Your task to perform on an android device: choose inbox layout in the gmail app Image 0: 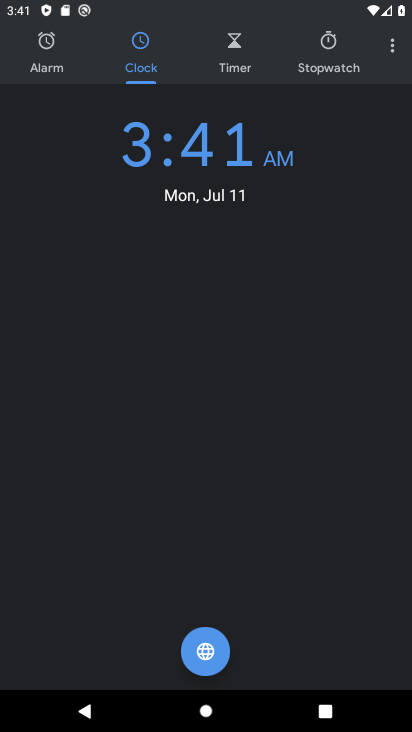
Step 0: press home button
Your task to perform on an android device: choose inbox layout in the gmail app Image 1: 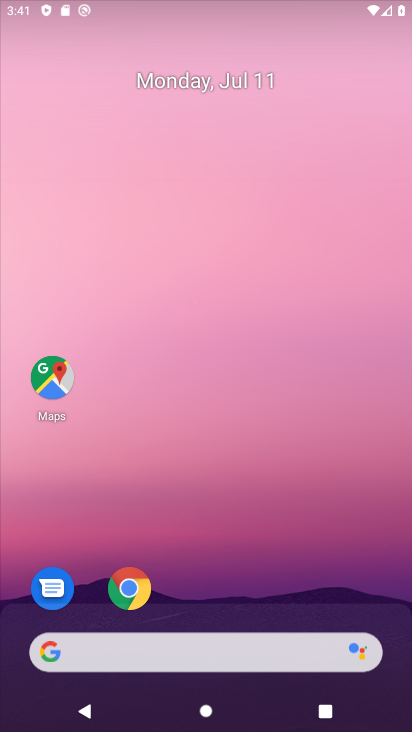
Step 1: drag from (298, 616) to (288, 0)
Your task to perform on an android device: choose inbox layout in the gmail app Image 2: 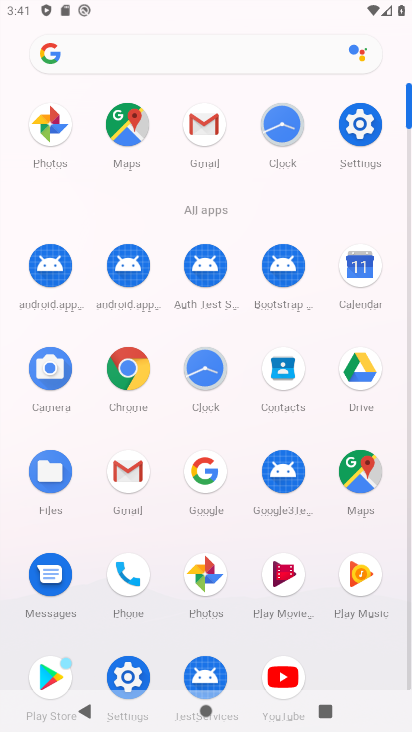
Step 2: click (187, 125)
Your task to perform on an android device: choose inbox layout in the gmail app Image 3: 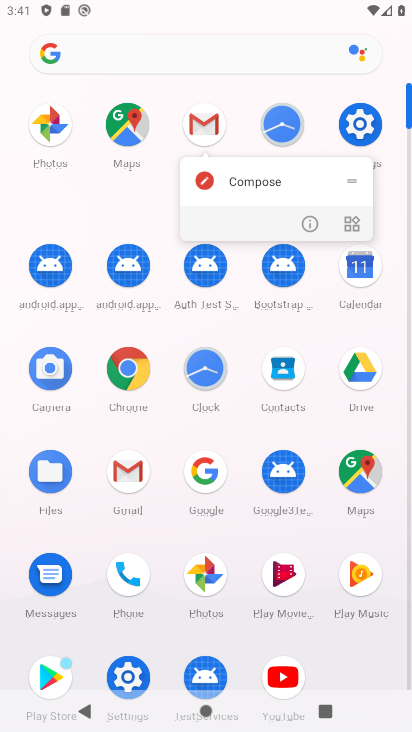
Step 3: click (195, 123)
Your task to perform on an android device: choose inbox layout in the gmail app Image 4: 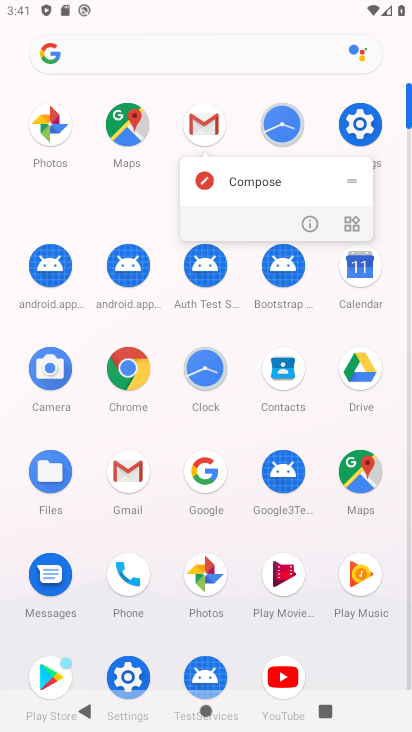
Step 4: click (197, 128)
Your task to perform on an android device: choose inbox layout in the gmail app Image 5: 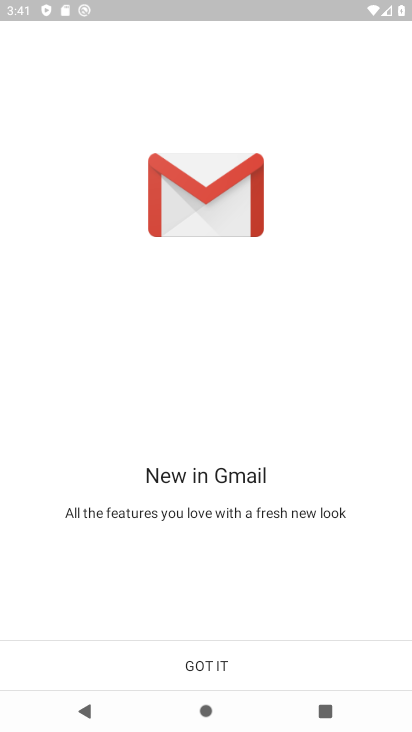
Step 5: click (212, 668)
Your task to perform on an android device: choose inbox layout in the gmail app Image 6: 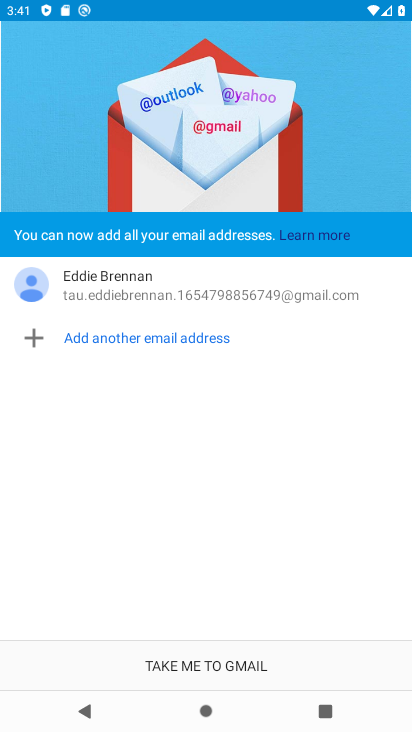
Step 6: click (212, 667)
Your task to perform on an android device: choose inbox layout in the gmail app Image 7: 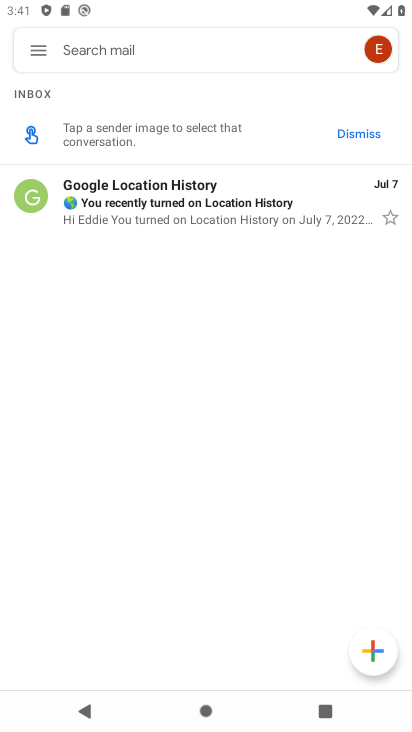
Step 7: click (39, 47)
Your task to perform on an android device: choose inbox layout in the gmail app Image 8: 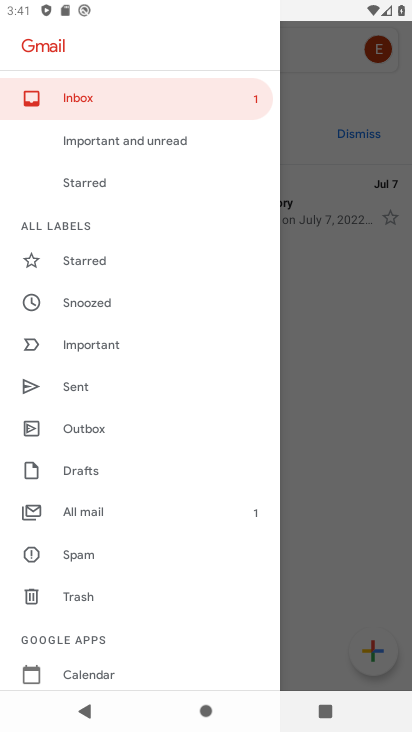
Step 8: drag from (93, 629) to (167, 85)
Your task to perform on an android device: choose inbox layout in the gmail app Image 9: 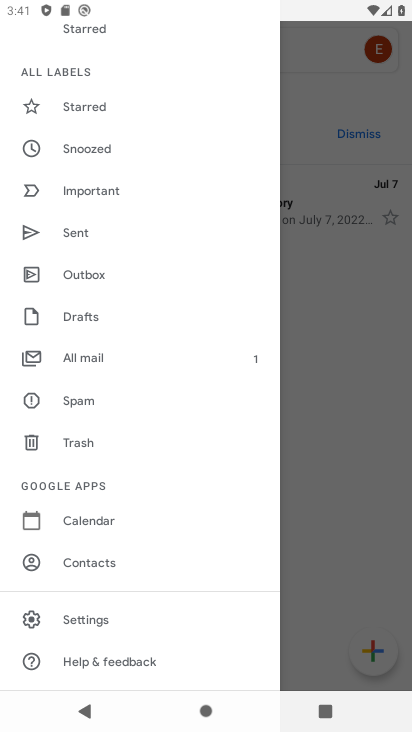
Step 9: click (78, 622)
Your task to perform on an android device: choose inbox layout in the gmail app Image 10: 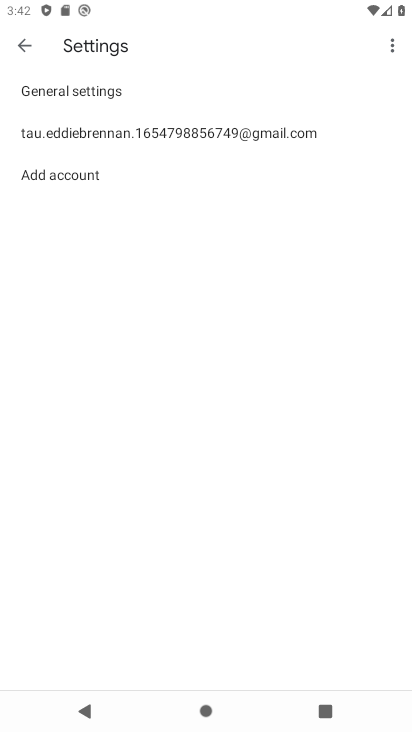
Step 10: click (62, 129)
Your task to perform on an android device: choose inbox layout in the gmail app Image 11: 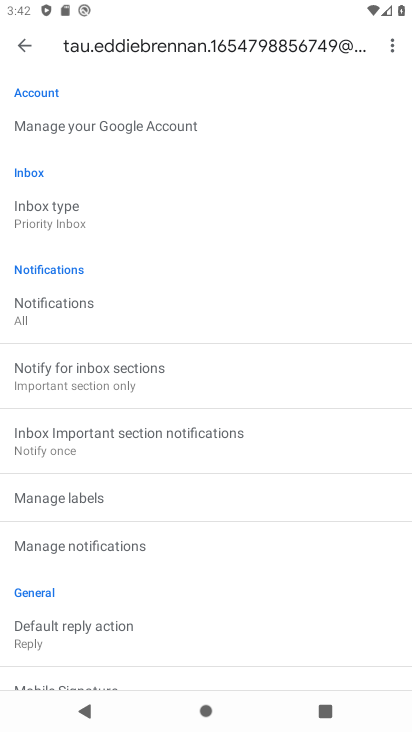
Step 11: click (50, 205)
Your task to perform on an android device: choose inbox layout in the gmail app Image 12: 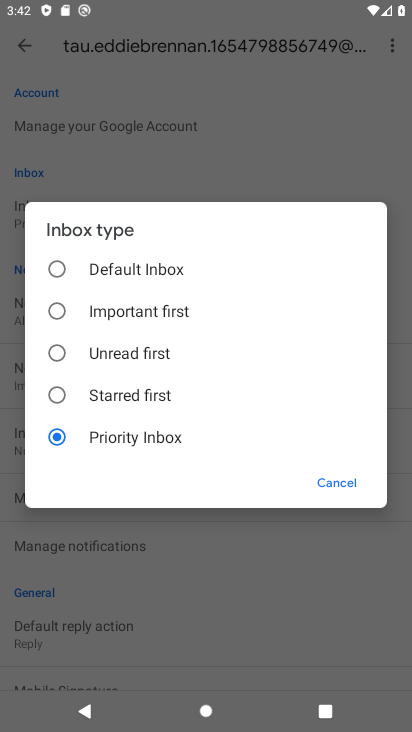
Step 12: click (78, 268)
Your task to perform on an android device: choose inbox layout in the gmail app Image 13: 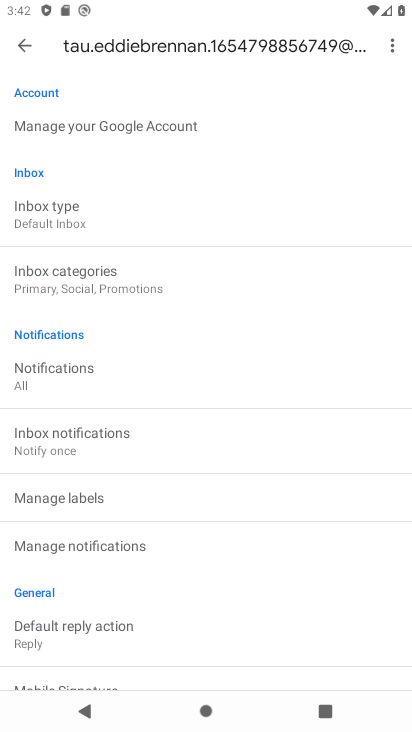
Step 13: task complete